Your task to perform on an android device: Search for "dell xps" on walmart, select the first entry, add it to the cart, then select checkout. Image 0: 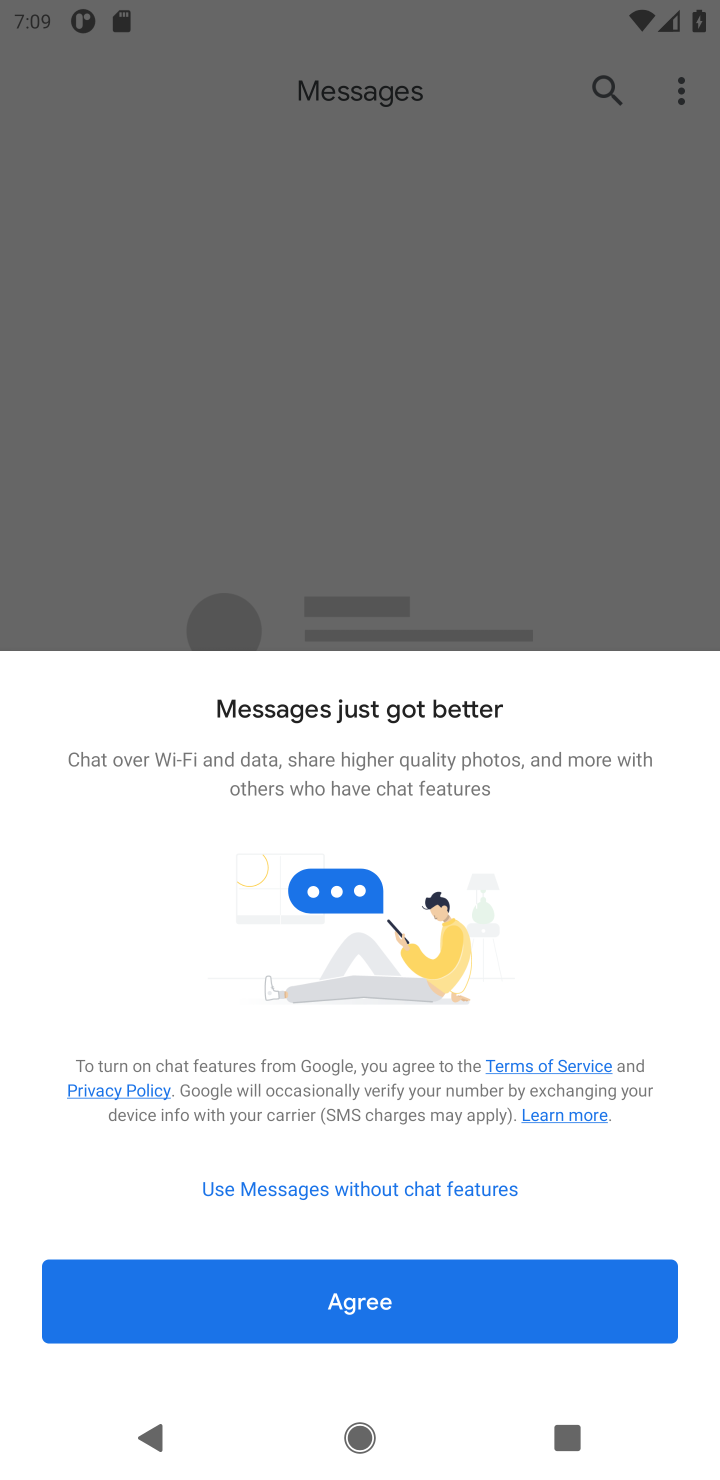
Step 0: press home button
Your task to perform on an android device: Search for "dell xps" on walmart, select the first entry, add it to the cart, then select checkout. Image 1: 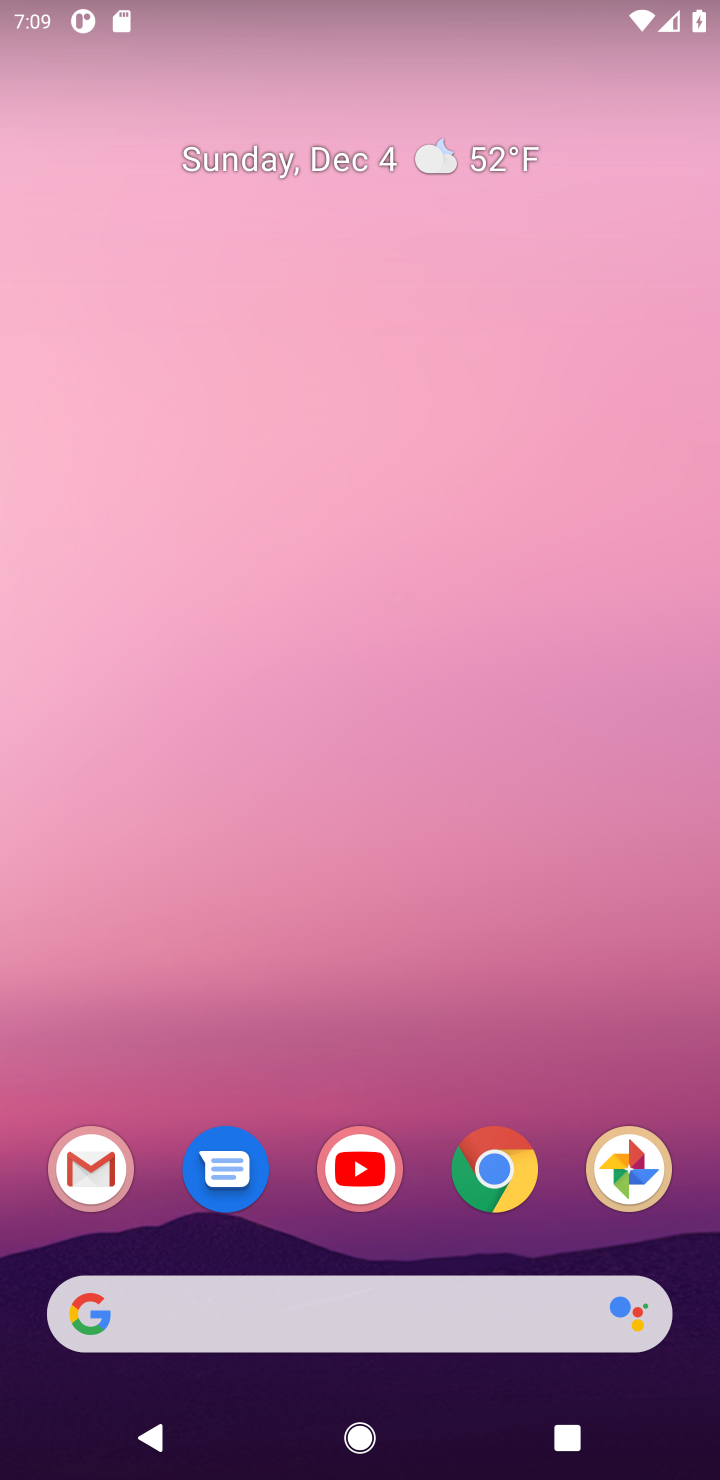
Step 1: click (495, 1171)
Your task to perform on an android device: Search for "dell xps" on walmart, select the first entry, add it to the cart, then select checkout. Image 2: 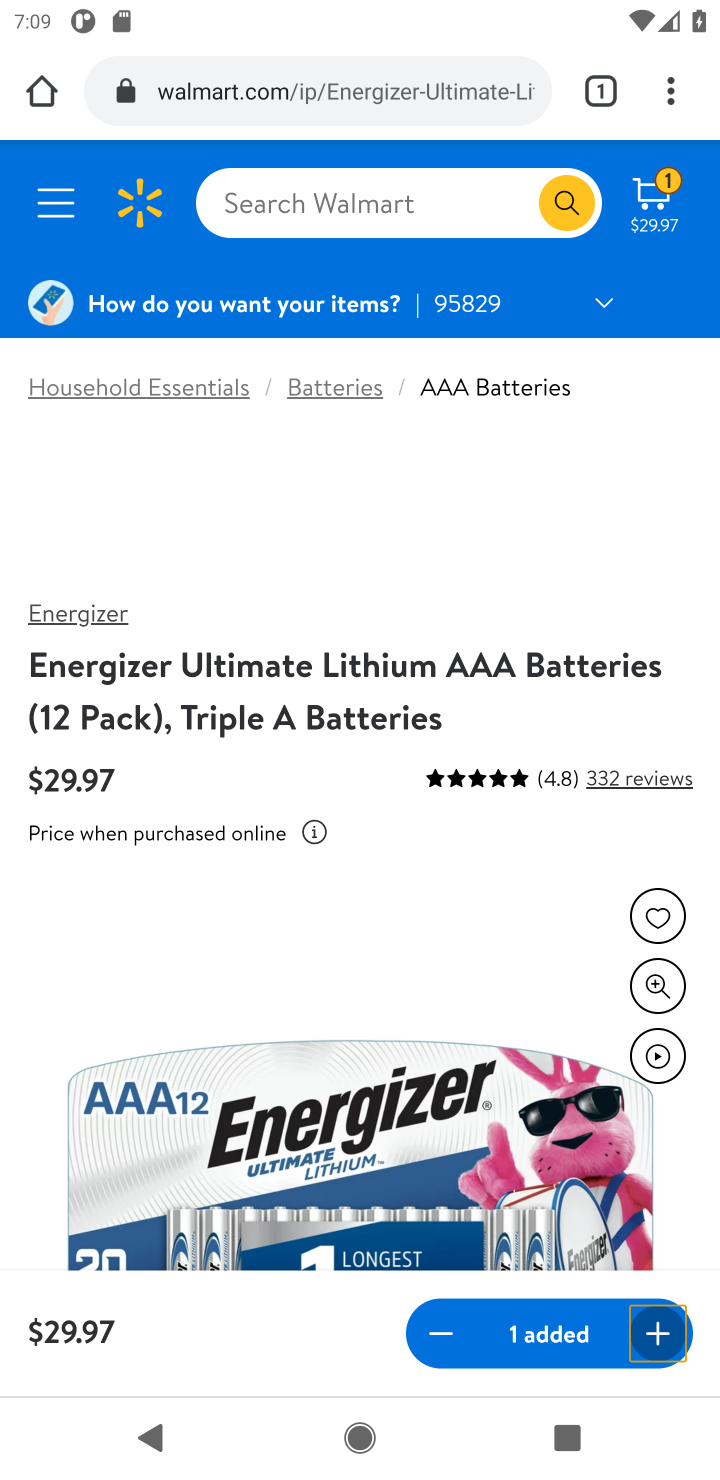
Step 2: click (473, 203)
Your task to perform on an android device: Search for "dell xps" on walmart, select the first entry, add it to the cart, then select checkout. Image 3: 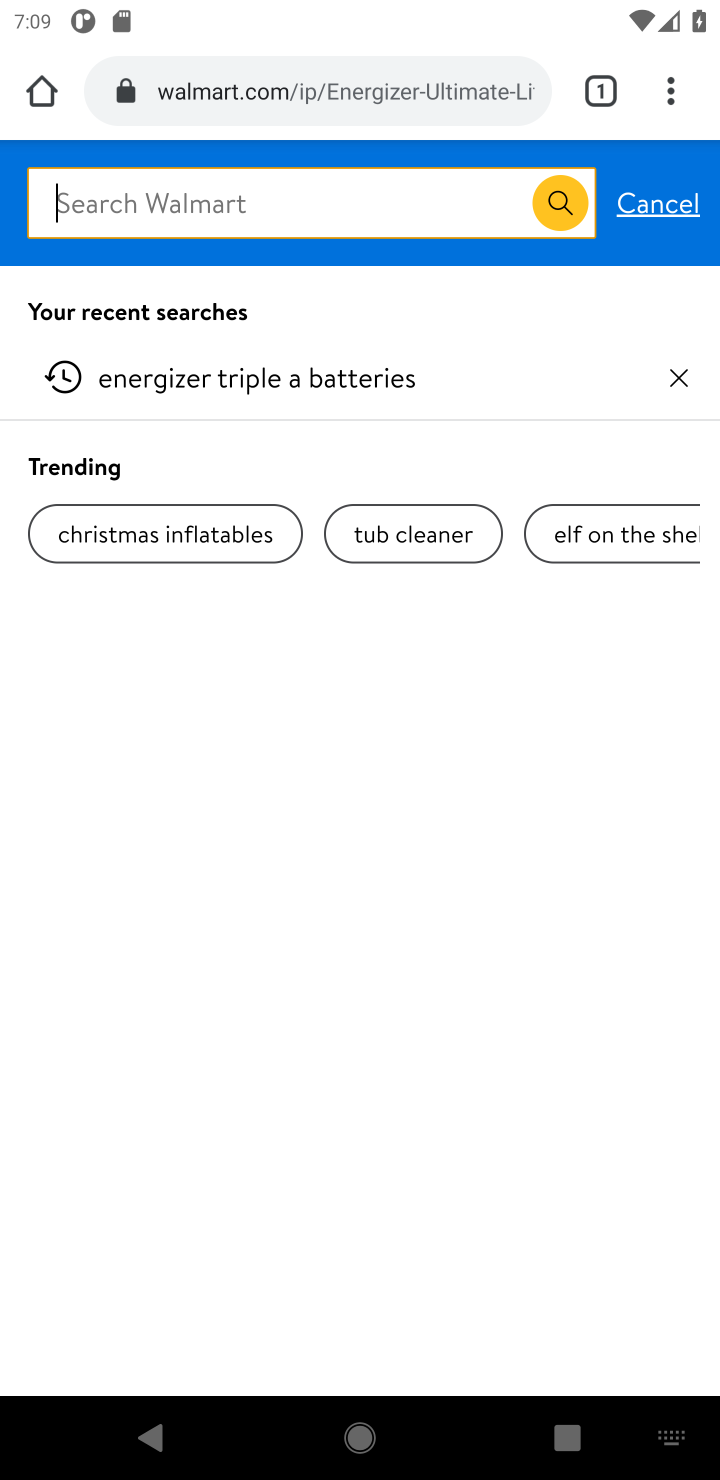
Step 3: type "dell xps"
Your task to perform on an android device: Search for "dell xps" on walmart, select the first entry, add it to the cart, then select checkout. Image 4: 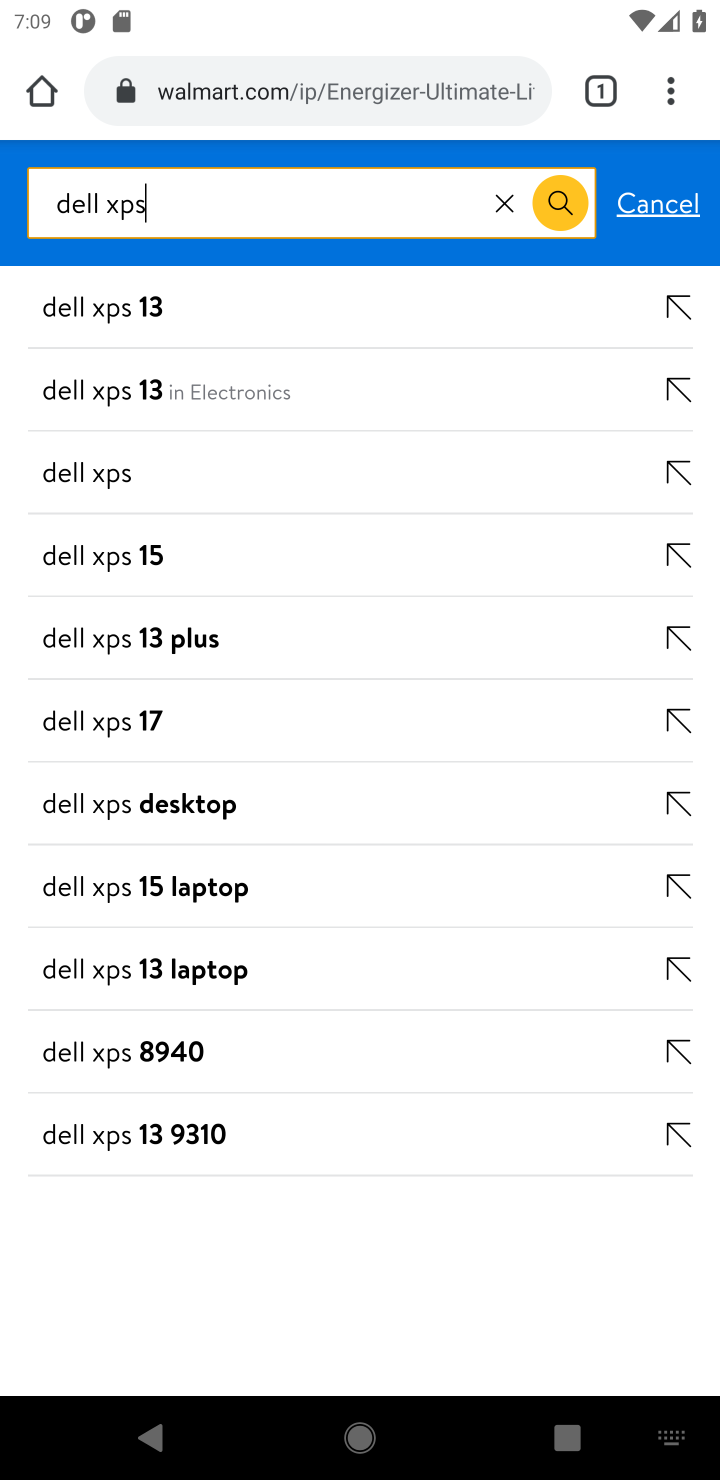
Step 4: click (103, 322)
Your task to perform on an android device: Search for "dell xps" on walmart, select the first entry, add it to the cart, then select checkout. Image 5: 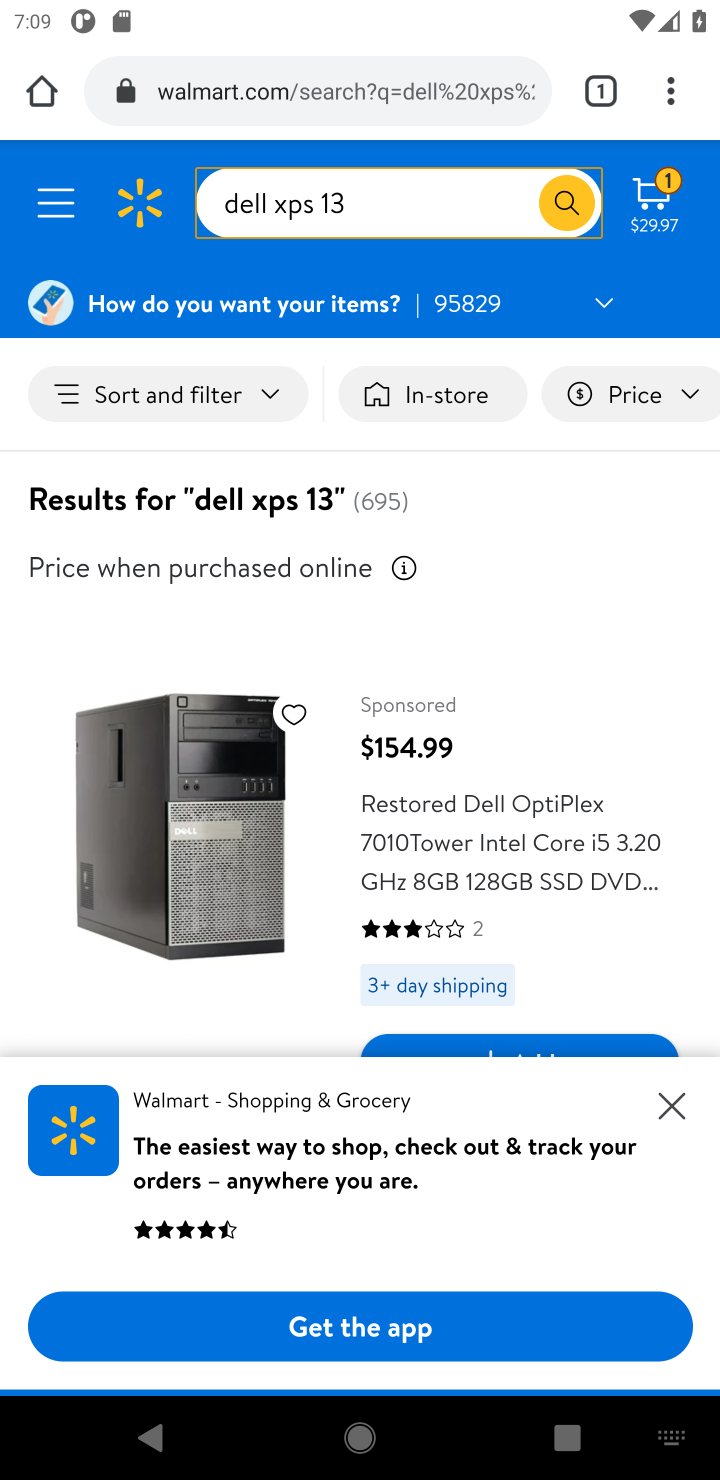
Step 5: click (206, 832)
Your task to perform on an android device: Search for "dell xps" on walmart, select the first entry, add it to the cart, then select checkout. Image 6: 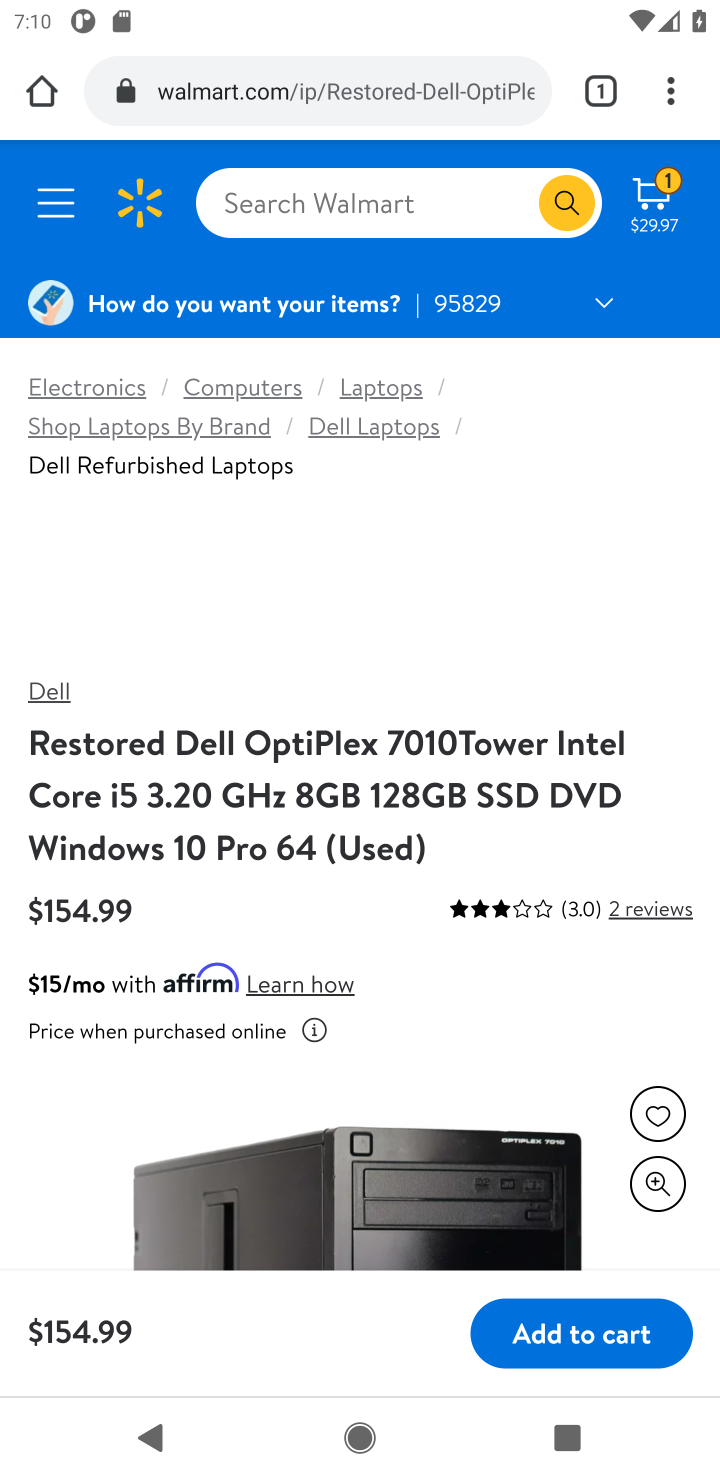
Step 6: click (544, 1342)
Your task to perform on an android device: Search for "dell xps" on walmart, select the first entry, add it to the cart, then select checkout. Image 7: 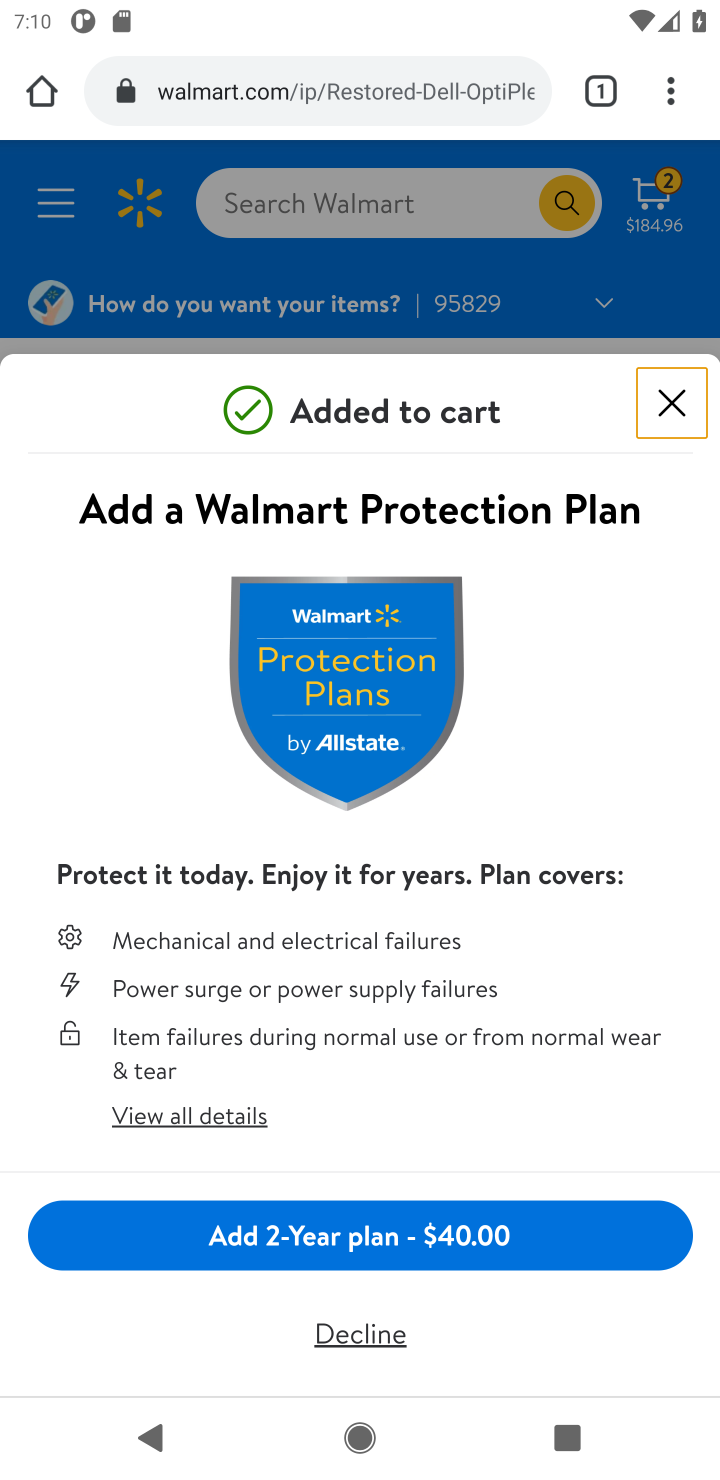
Step 7: task complete